Your task to perform on an android device: When is my next appointment? Image 0: 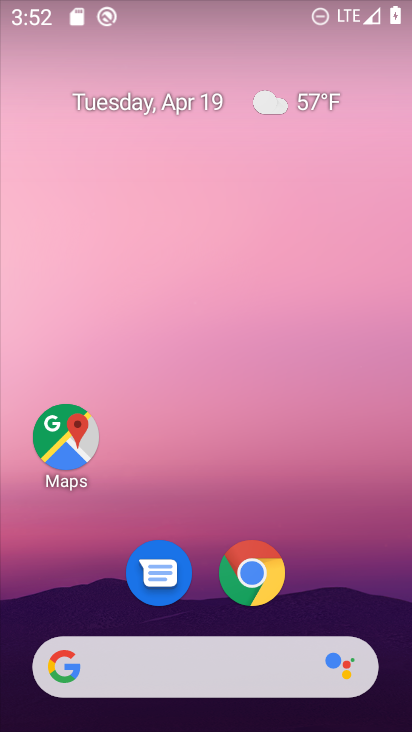
Step 0: drag from (362, 599) to (369, 1)
Your task to perform on an android device: When is my next appointment? Image 1: 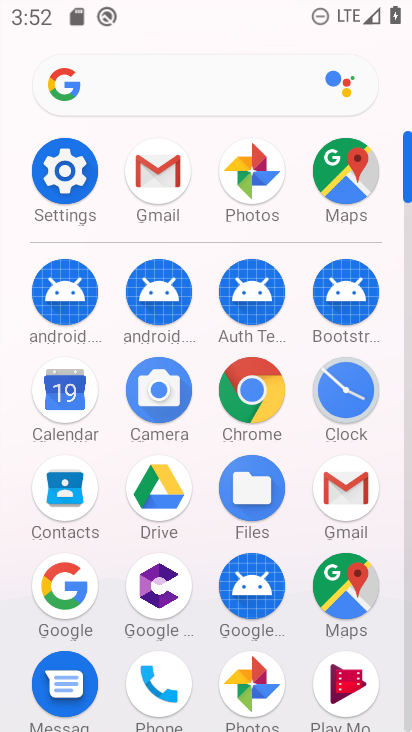
Step 1: click (72, 401)
Your task to perform on an android device: When is my next appointment? Image 2: 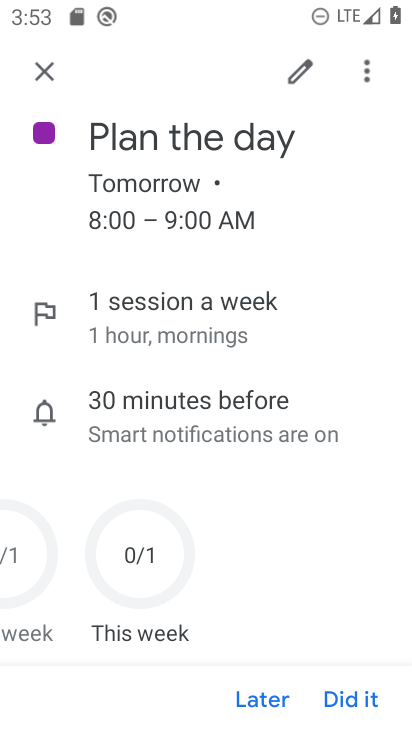
Step 2: click (46, 78)
Your task to perform on an android device: When is my next appointment? Image 3: 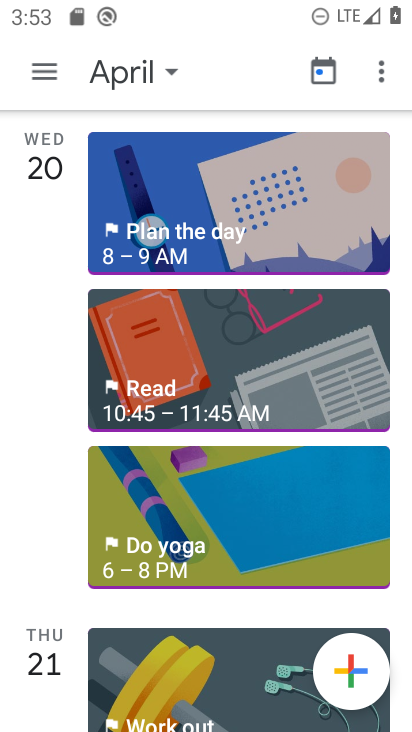
Step 3: drag from (199, 265) to (189, 464)
Your task to perform on an android device: When is my next appointment? Image 4: 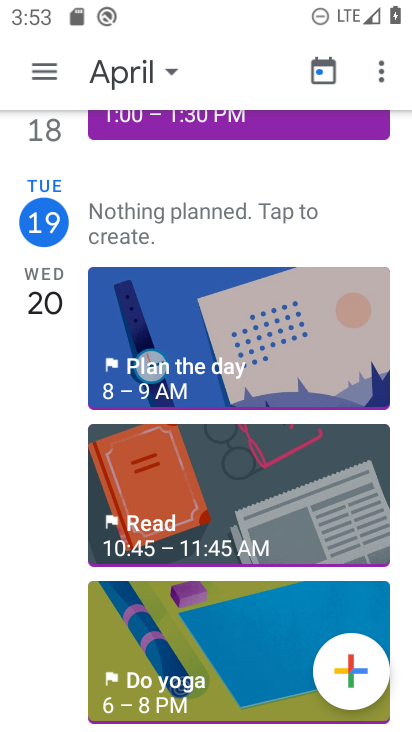
Step 4: drag from (210, 485) to (211, 379)
Your task to perform on an android device: When is my next appointment? Image 5: 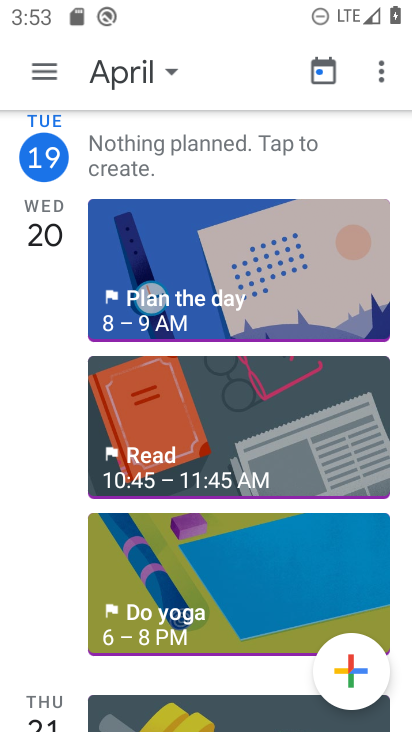
Step 5: click (48, 78)
Your task to perform on an android device: When is my next appointment? Image 6: 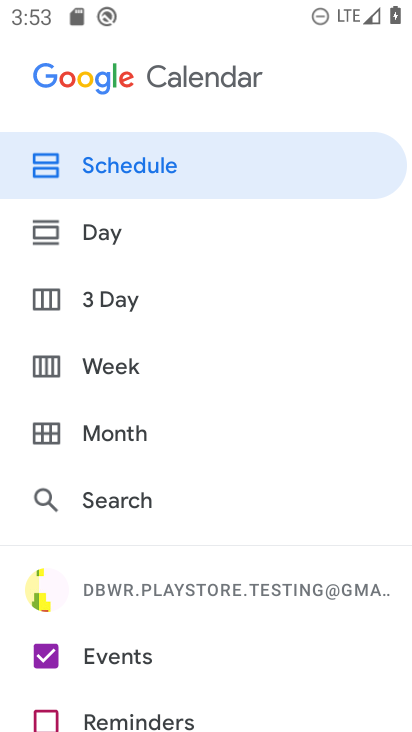
Step 6: click (126, 615)
Your task to perform on an android device: When is my next appointment? Image 7: 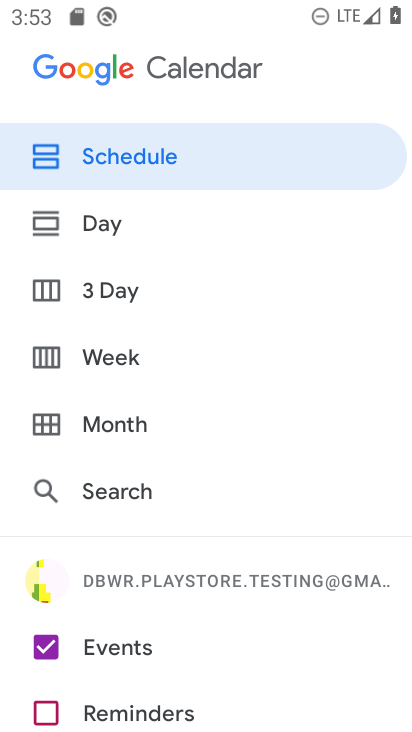
Step 7: click (99, 154)
Your task to perform on an android device: When is my next appointment? Image 8: 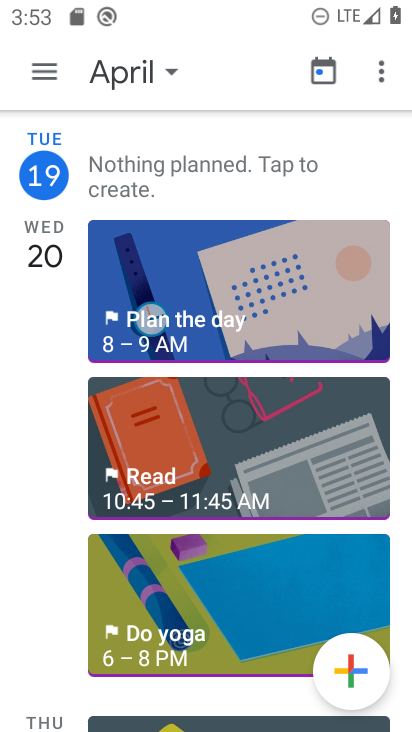
Step 8: click (217, 334)
Your task to perform on an android device: When is my next appointment? Image 9: 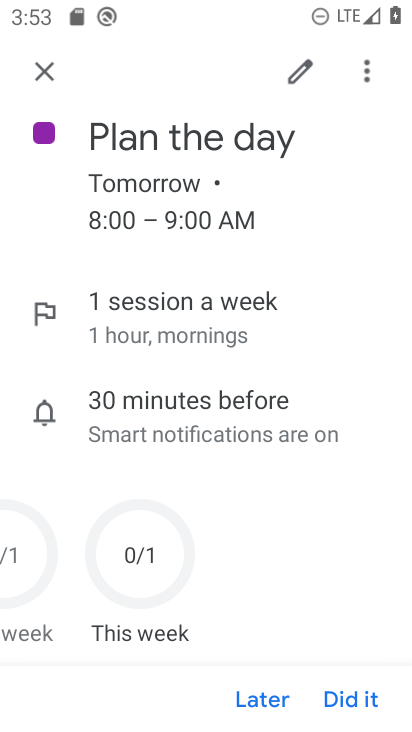
Step 9: click (33, 78)
Your task to perform on an android device: When is my next appointment? Image 10: 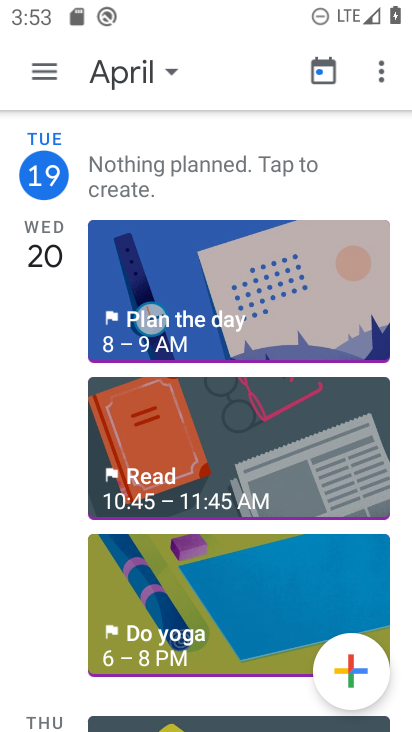
Step 10: click (208, 495)
Your task to perform on an android device: When is my next appointment? Image 11: 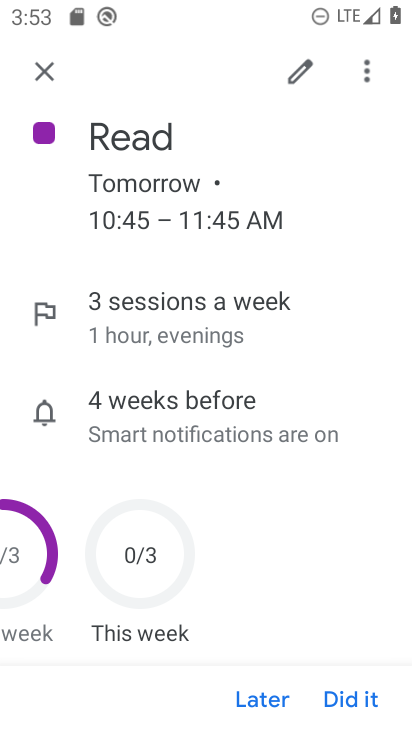
Step 11: task complete